Your task to perform on an android device: Set the phone to "Do not disturb". Image 0: 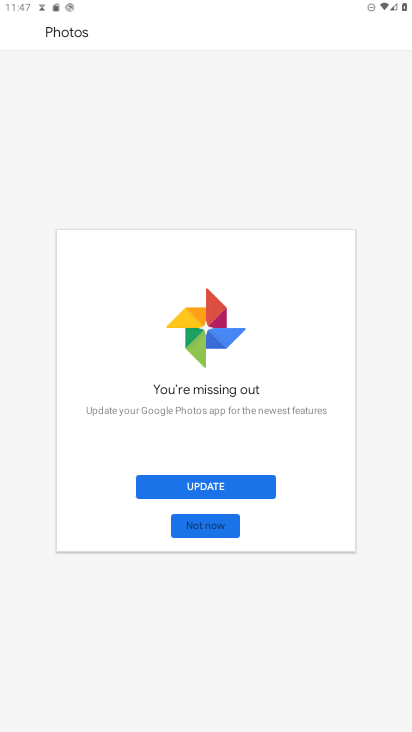
Step 0: press home button
Your task to perform on an android device: Set the phone to "Do not disturb". Image 1: 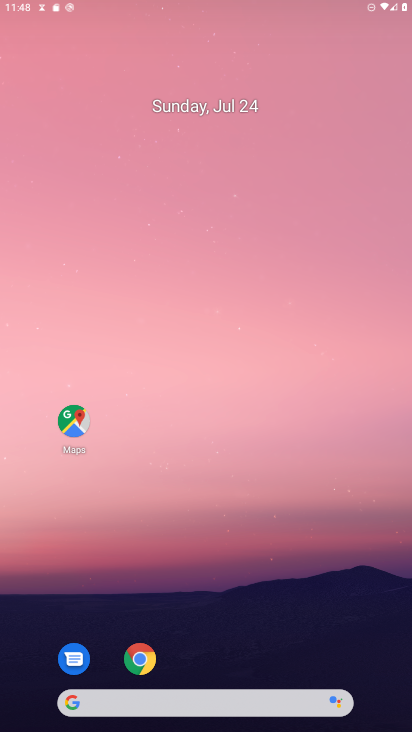
Step 1: click (23, 581)
Your task to perform on an android device: Set the phone to "Do not disturb". Image 2: 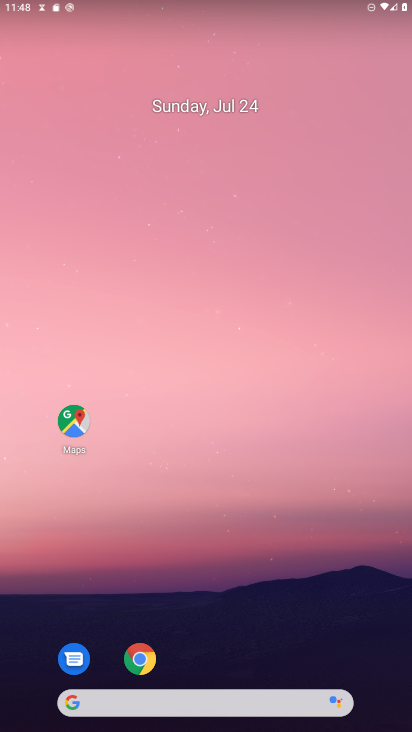
Step 2: task complete